Your task to perform on an android device: View the shopping cart on amazon. Image 0: 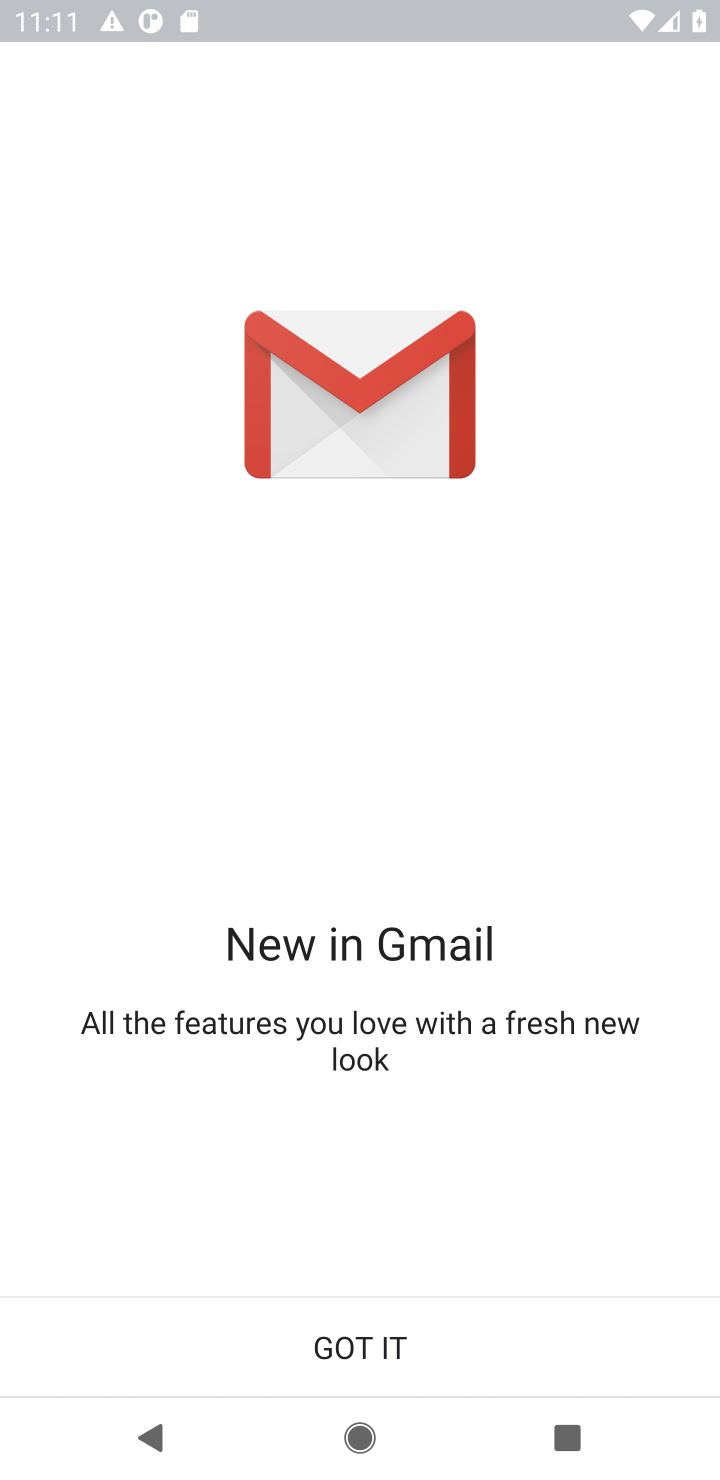
Step 0: press home button
Your task to perform on an android device: View the shopping cart on amazon. Image 1: 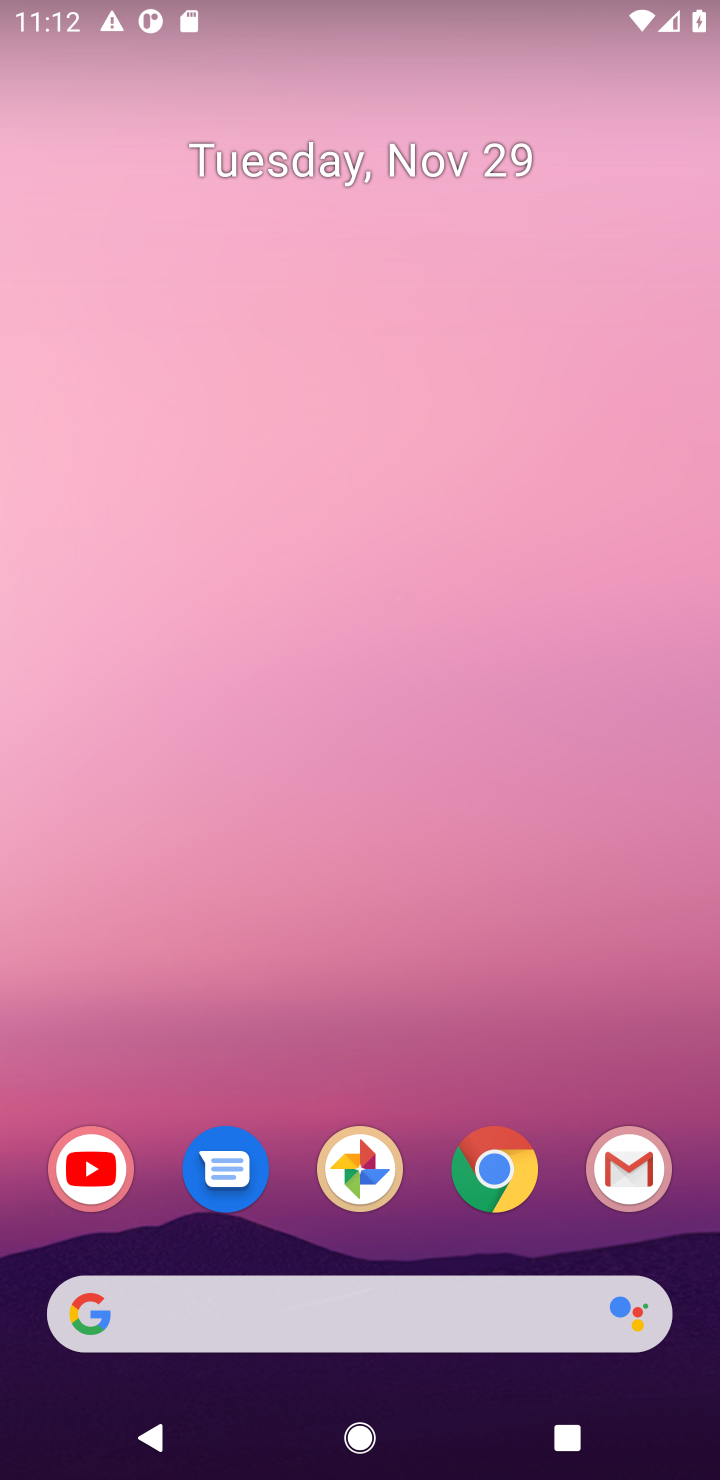
Step 1: click (318, 1315)
Your task to perform on an android device: View the shopping cart on amazon. Image 2: 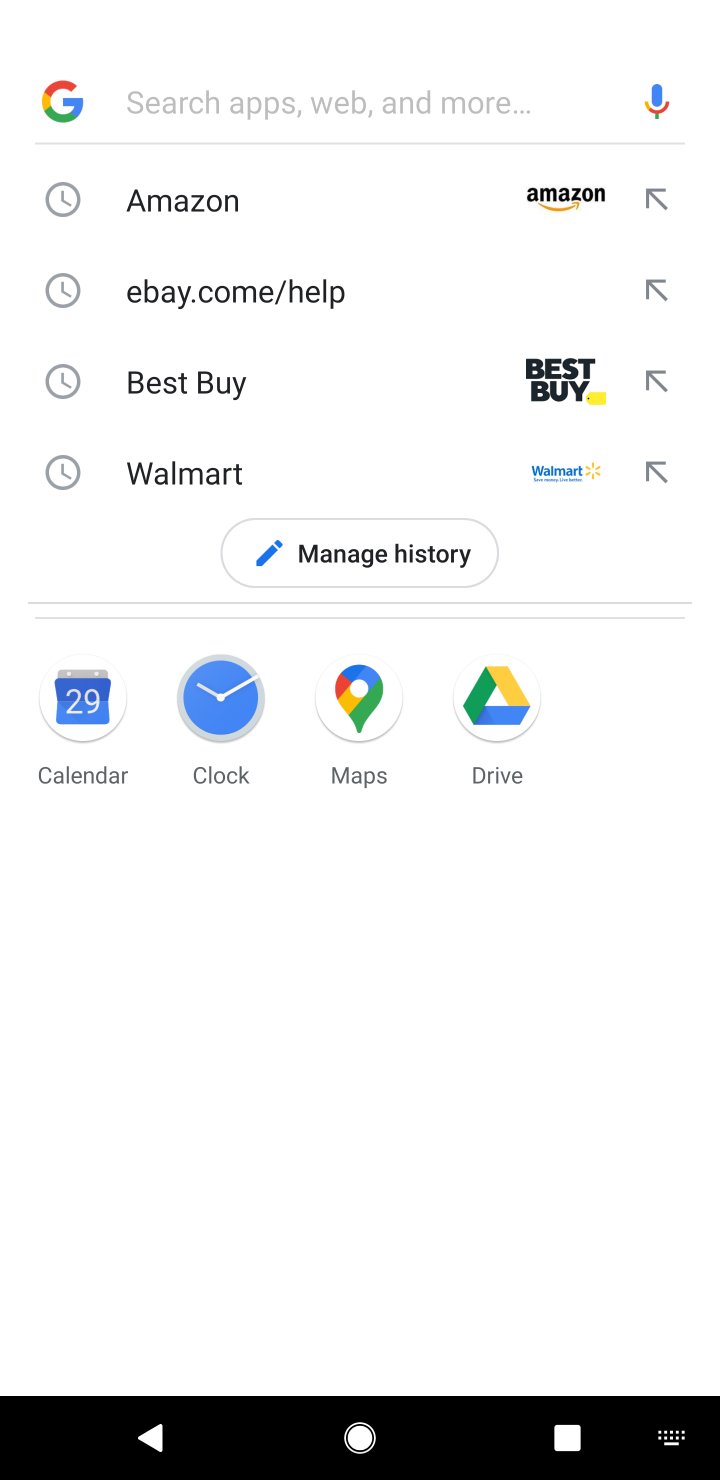
Step 2: click (229, 183)
Your task to perform on an android device: View the shopping cart on amazon. Image 3: 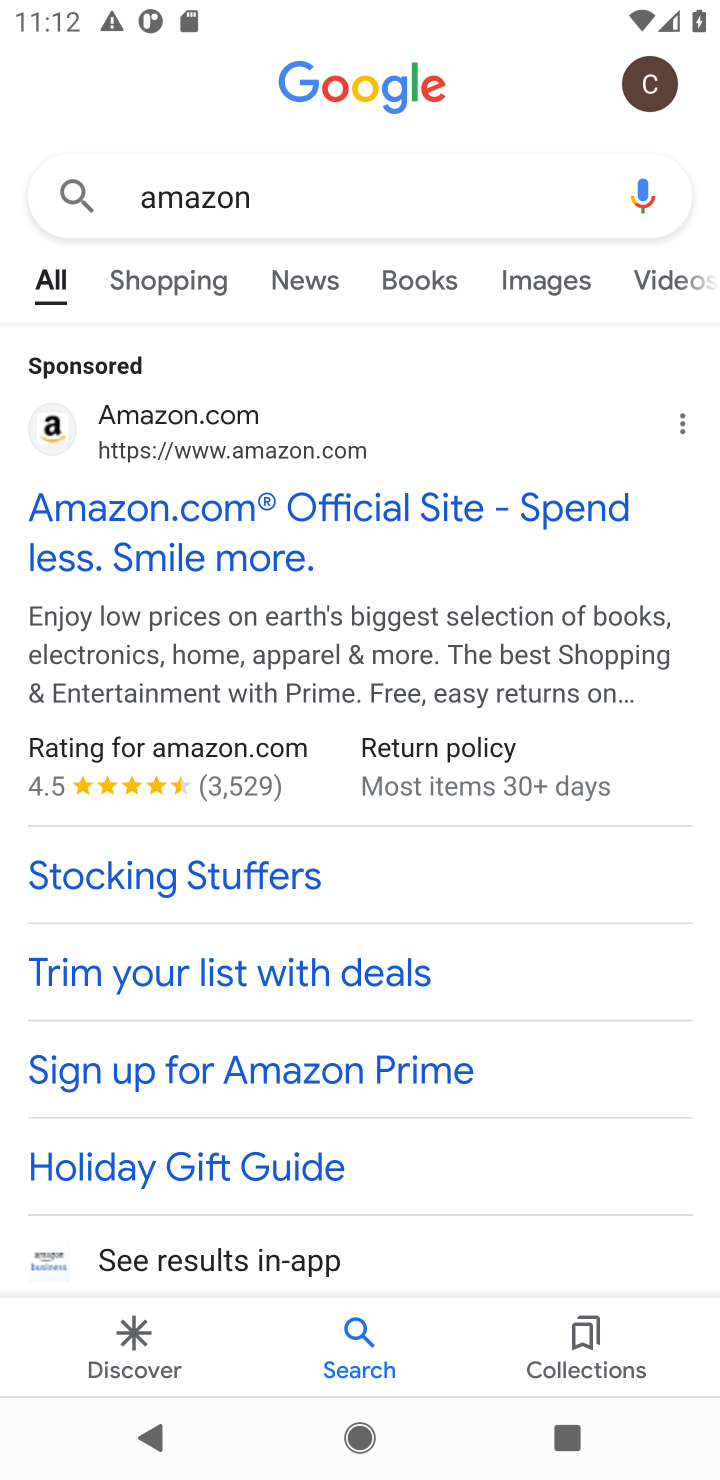
Step 3: click (187, 536)
Your task to perform on an android device: View the shopping cart on amazon. Image 4: 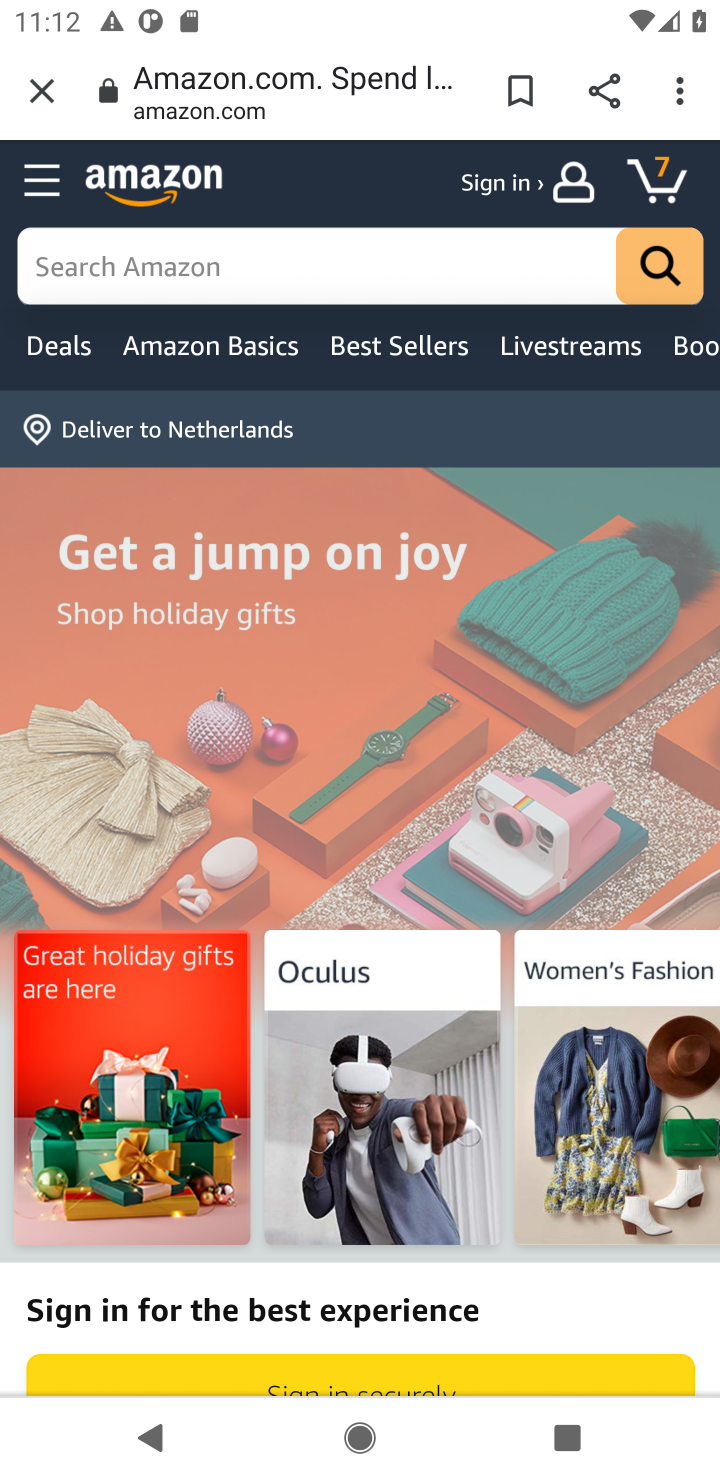
Step 4: click (302, 256)
Your task to perform on an android device: View the shopping cart on amazon. Image 5: 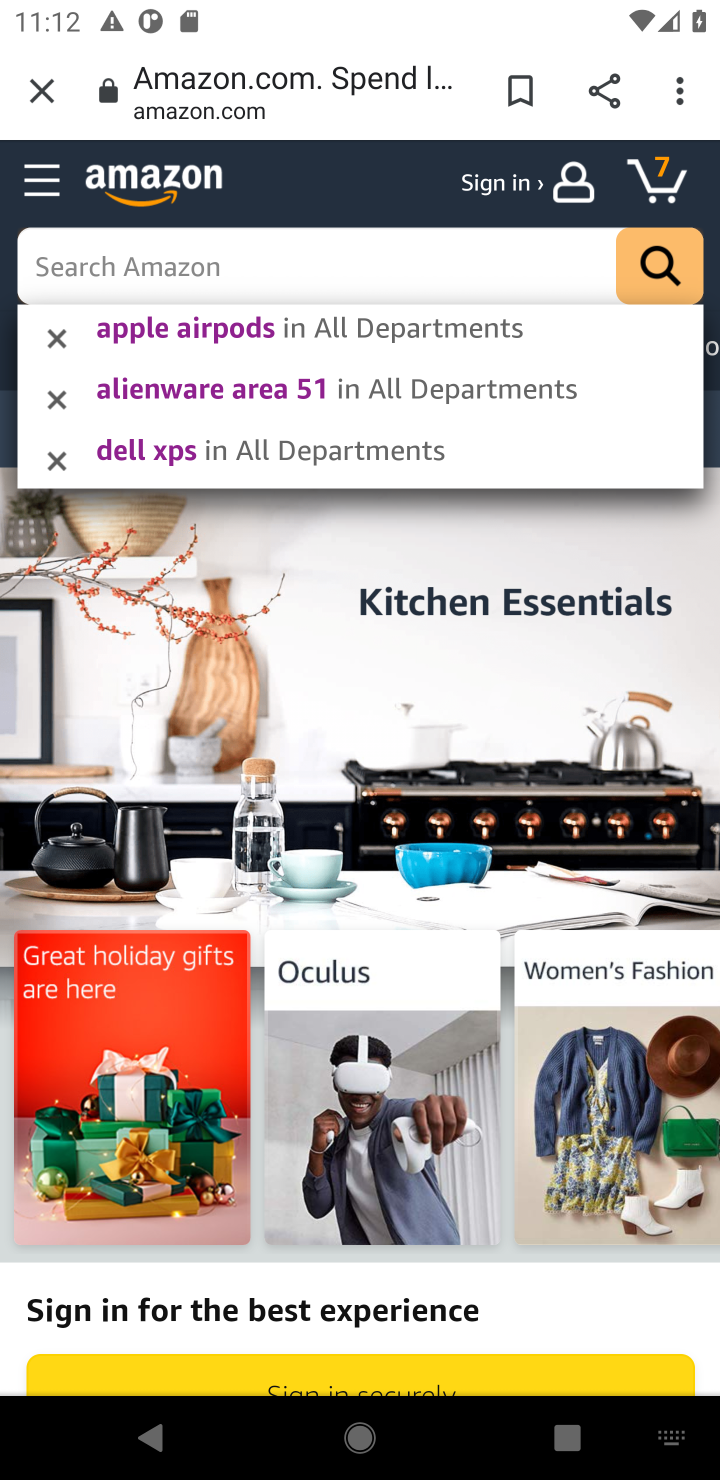
Step 5: type "amazon"
Your task to perform on an android device: View the shopping cart on amazon. Image 6: 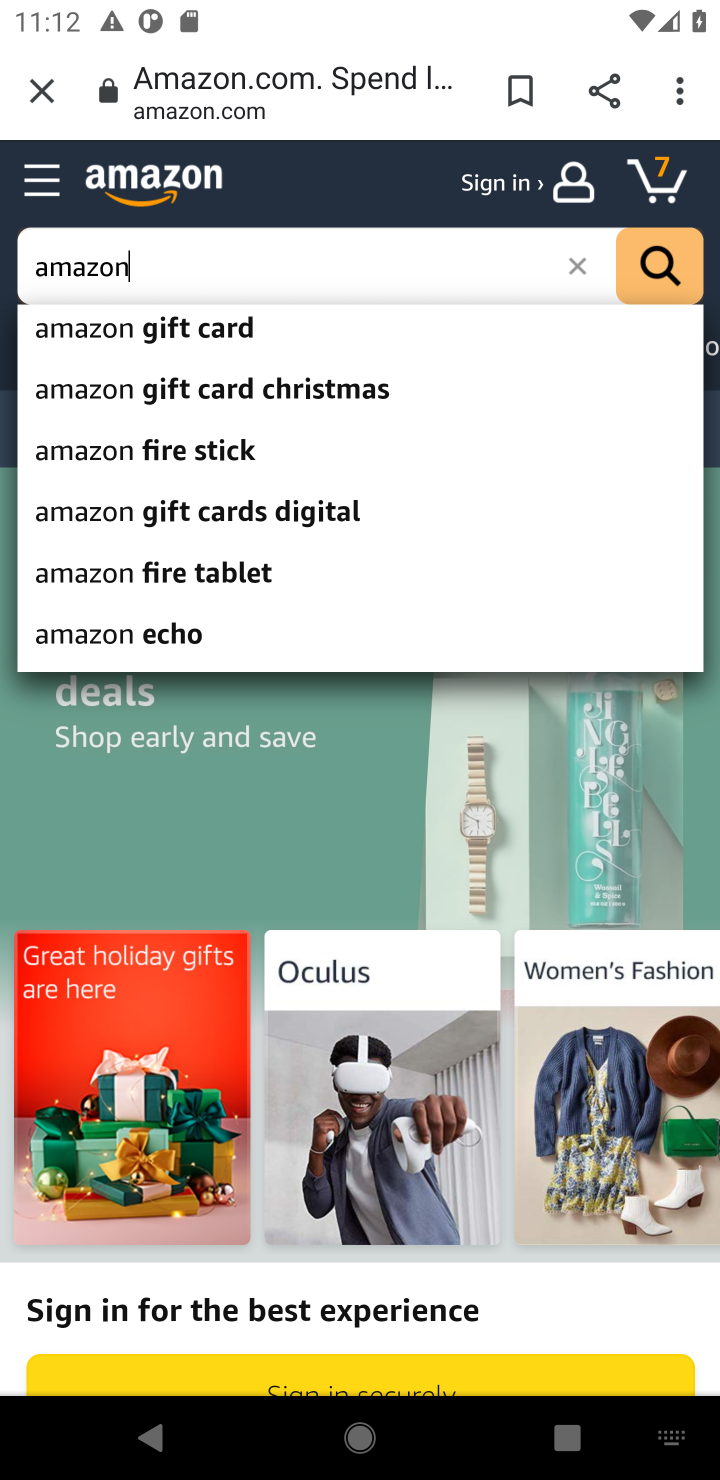
Step 6: click (650, 195)
Your task to perform on an android device: View the shopping cart on amazon. Image 7: 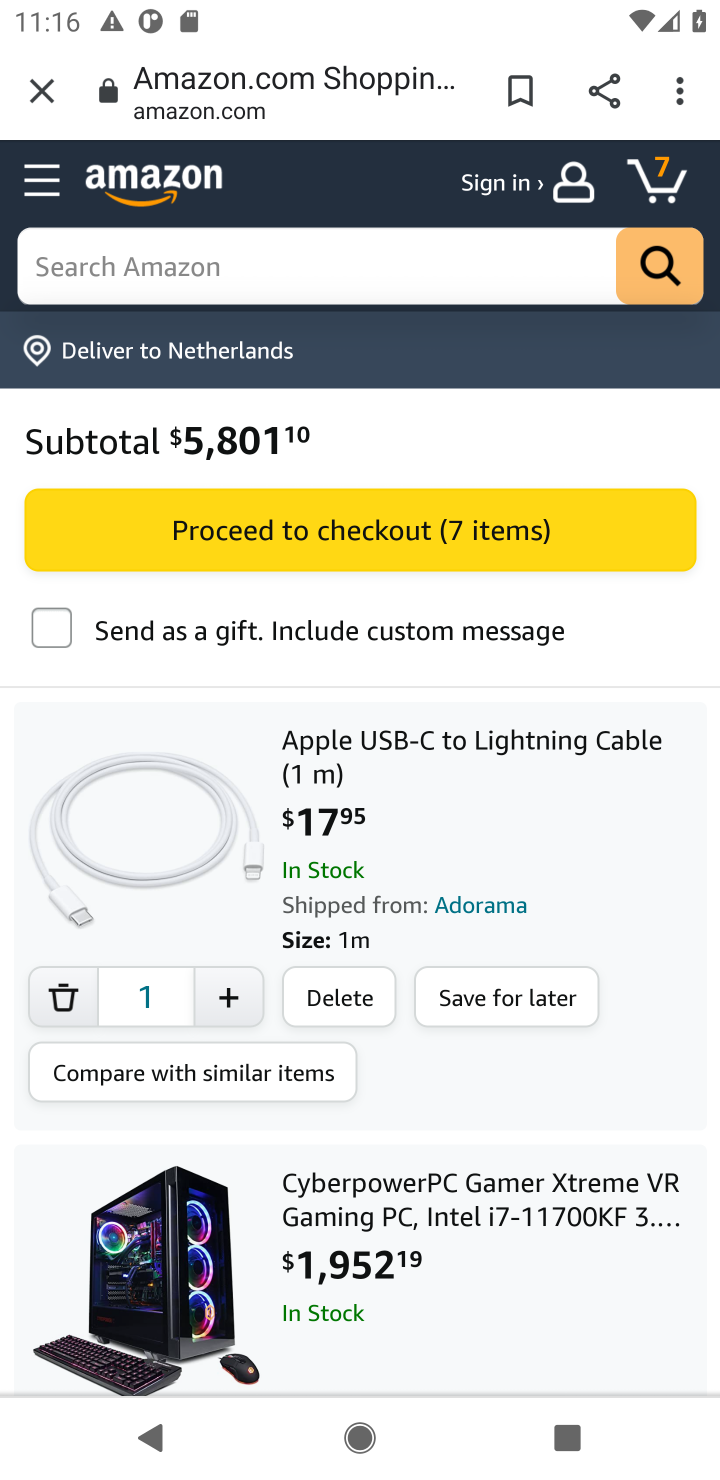
Step 7: task complete